Your task to perform on an android device: turn notification dots off Image 0: 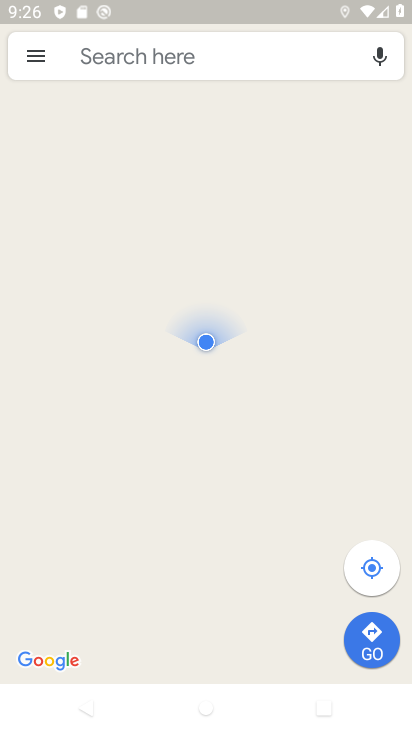
Step 0: press home button
Your task to perform on an android device: turn notification dots off Image 1: 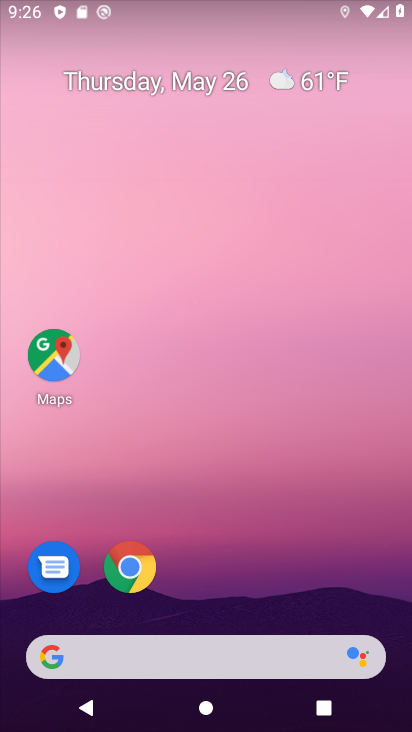
Step 1: drag from (315, 573) to (293, 90)
Your task to perform on an android device: turn notification dots off Image 2: 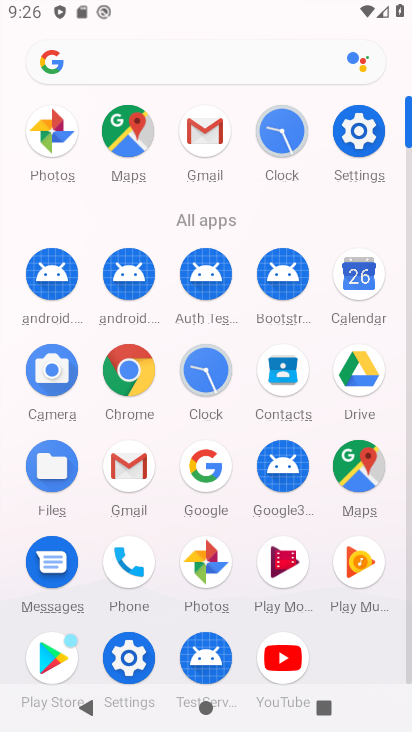
Step 2: click (374, 145)
Your task to perform on an android device: turn notification dots off Image 3: 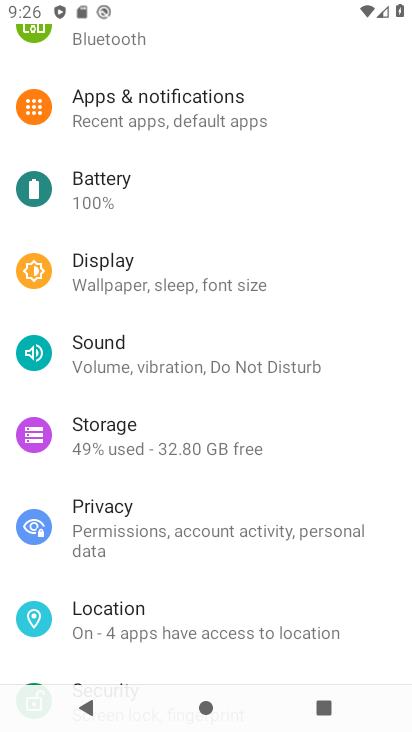
Step 3: click (223, 108)
Your task to perform on an android device: turn notification dots off Image 4: 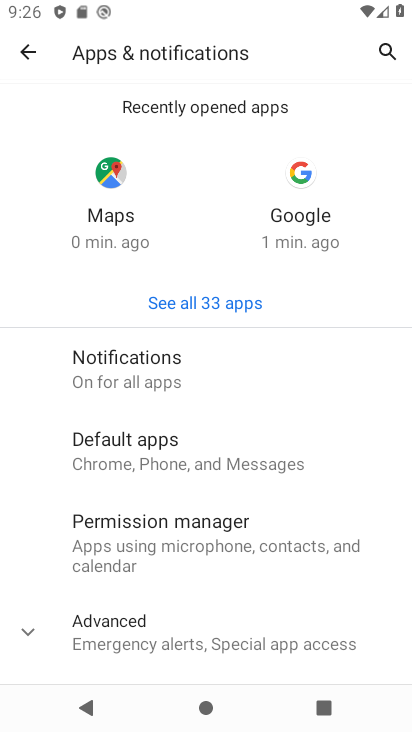
Step 4: drag from (249, 441) to (251, 318)
Your task to perform on an android device: turn notification dots off Image 5: 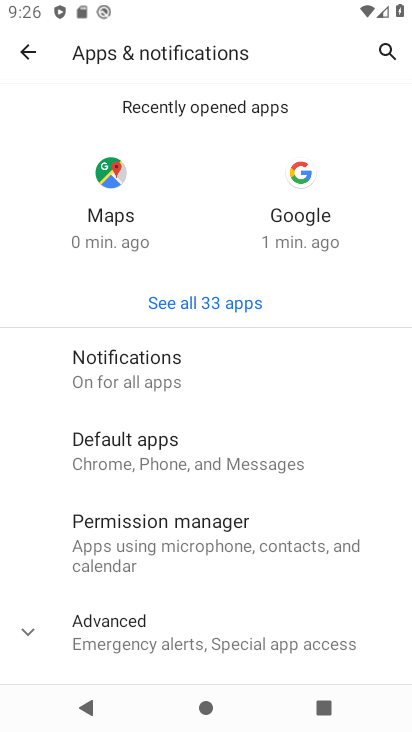
Step 5: click (227, 363)
Your task to perform on an android device: turn notification dots off Image 6: 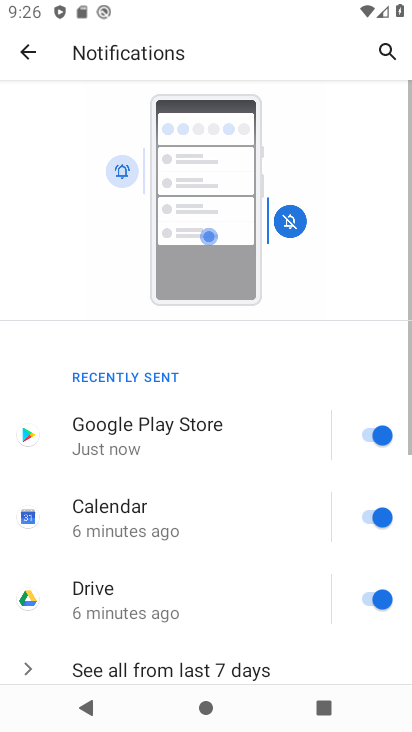
Step 6: drag from (219, 661) to (225, 235)
Your task to perform on an android device: turn notification dots off Image 7: 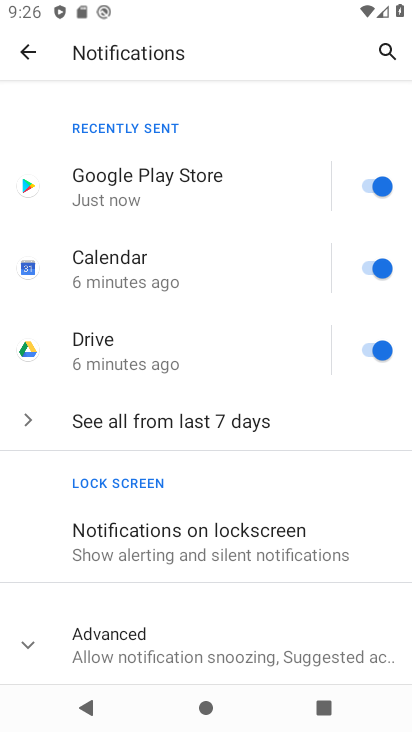
Step 7: click (213, 669)
Your task to perform on an android device: turn notification dots off Image 8: 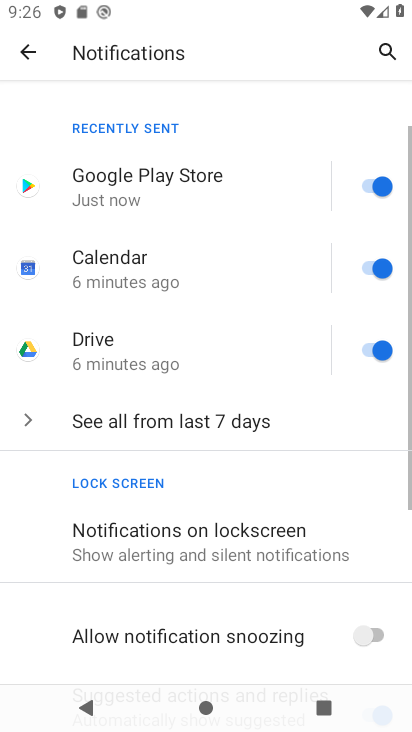
Step 8: drag from (219, 643) to (246, 348)
Your task to perform on an android device: turn notification dots off Image 9: 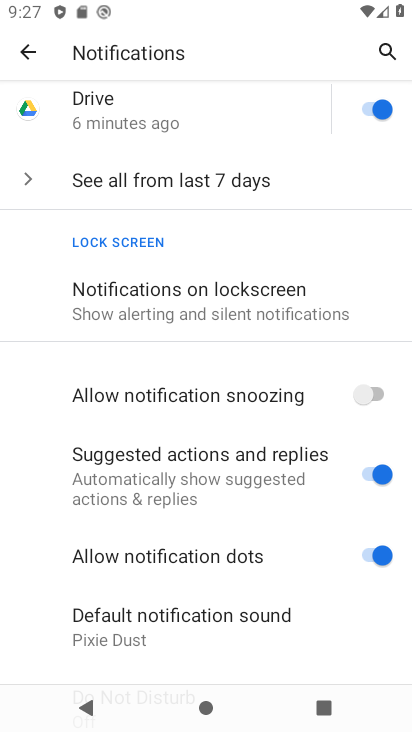
Step 9: click (391, 552)
Your task to perform on an android device: turn notification dots off Image 10: 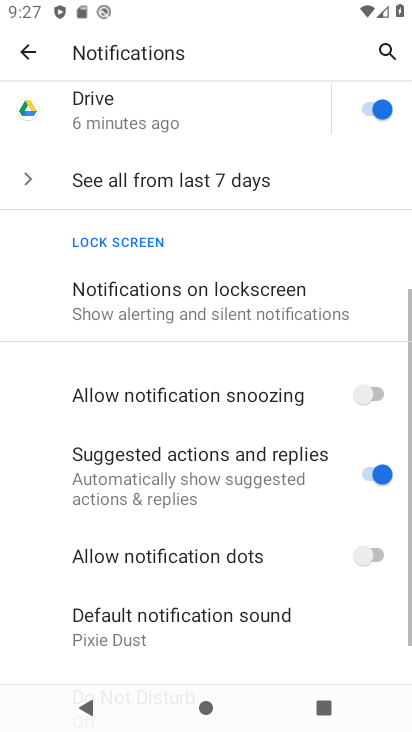
Step 10: task complete